Your task to perform on an android device: Go to Maps Image 0: 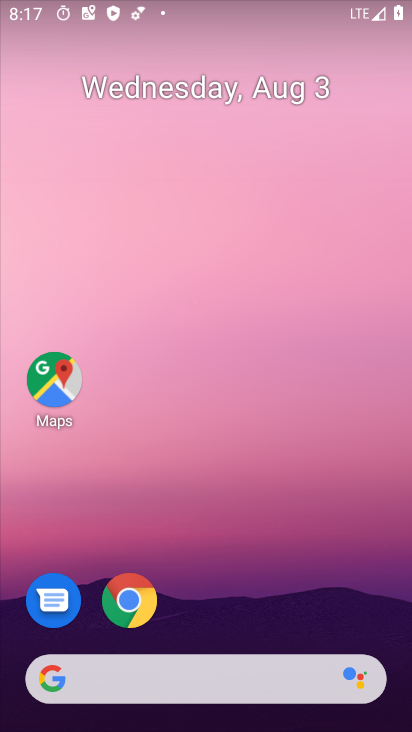
Step 0: click (60, 387)
Your task to perform on an android device: Go to Maps Image 1: 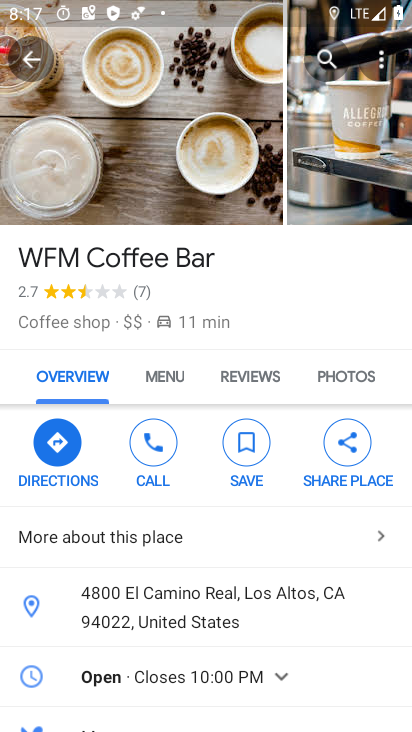
Step 1: click (40, 66)
Your task to perform on an android device: Go to Maps Image 2: 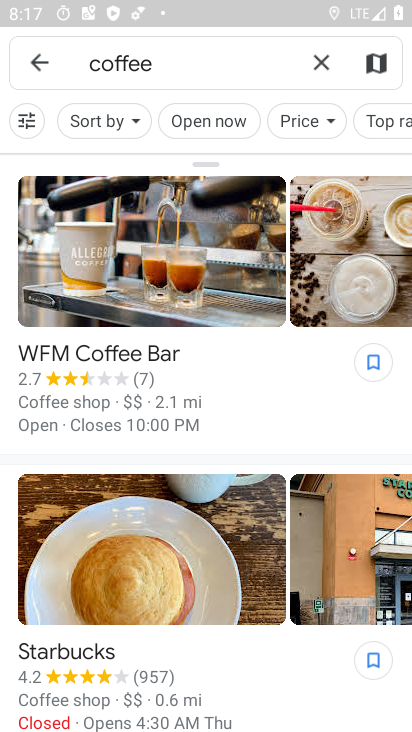
Step 2: click (40, 64)
Your task to perform on an android device: Go to Maps Image 3: 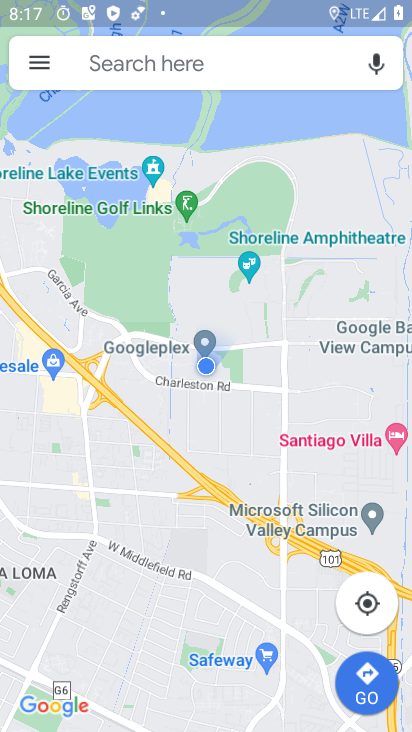
Step 3: task complete